Your task to perform on an android device: Go to accessibility settings Image 0: 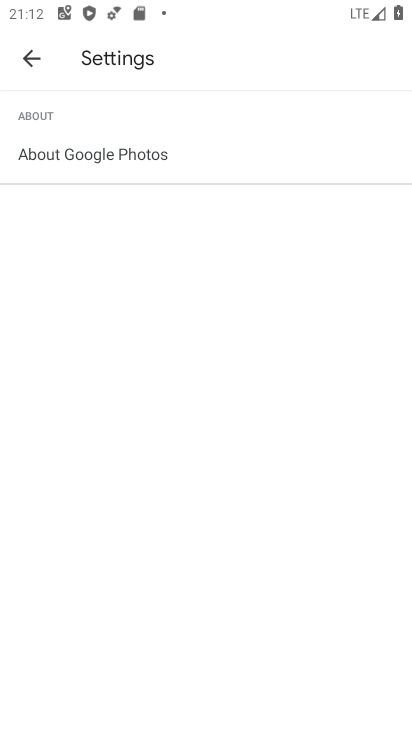
Step 0: press home button
Your task to perform on an android device: Go to accessibility settings Image 1: 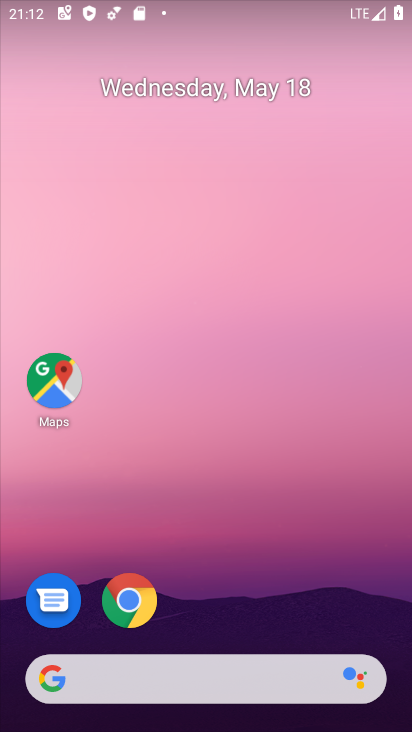
Step 1: drag from (190, 580) to (322, 2)
Your task to perform on an android device: Go to accessibility settings Image 2: 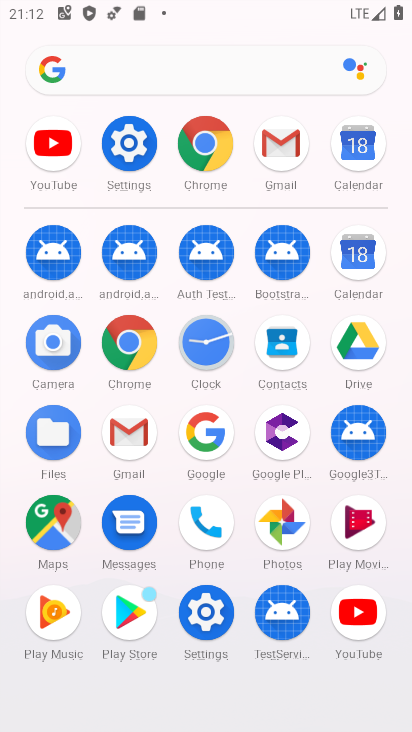
Step 2: click (136, 151)
Your task to perform on an android device: Go to accessibility settings Image 3: 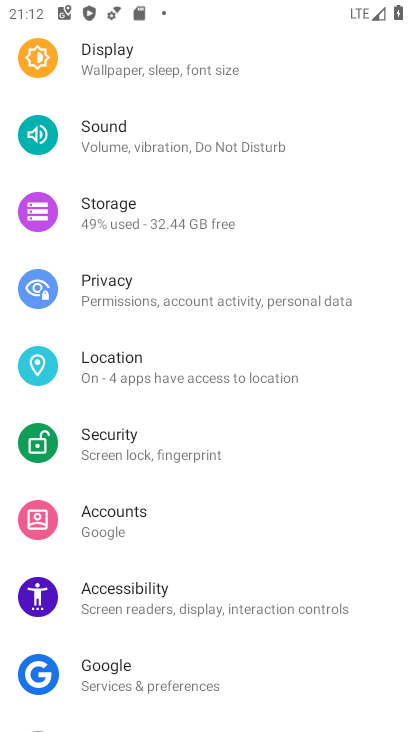
Step 3: click (153, 607)
Your task to perform on an android device: Go to accessibility settings Image 4: 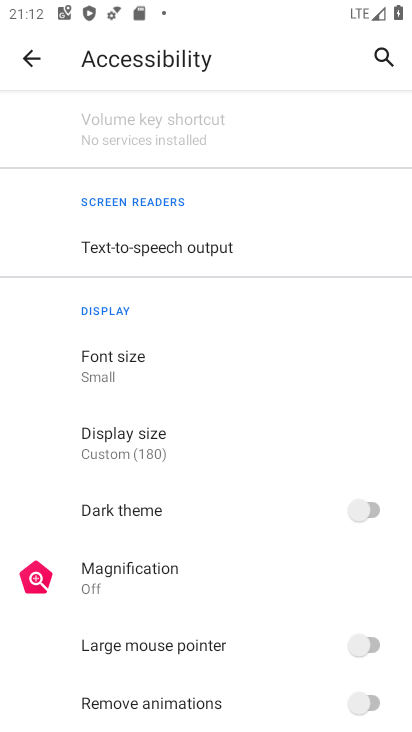
Step 4: task complete